Your task to perform on an android device: toggle data saver in the chrome app Image 0: 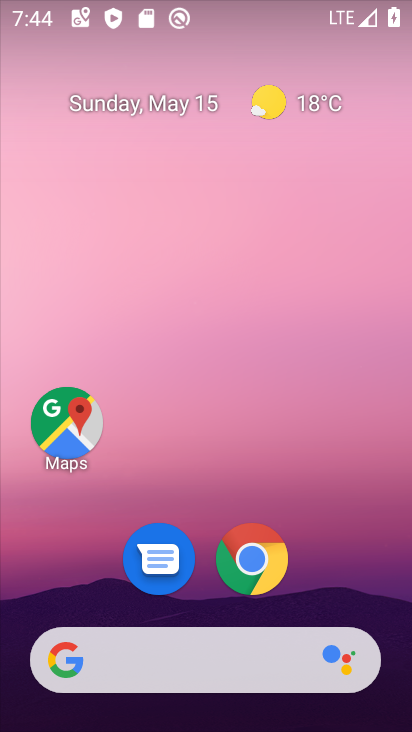
Step 0: click (252, 566)
Your task to perform on an android device: toggle data saver in the chrome app Image 1: 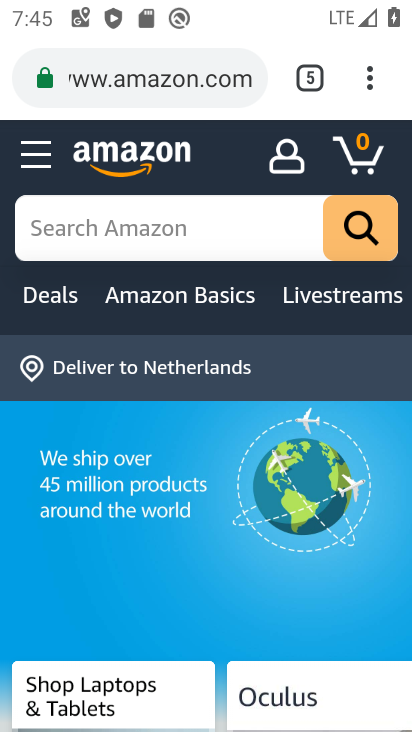
Step 1: click (371, 73)
Your task to perform on an android device: toggle data saver in the chrome app Image 2: 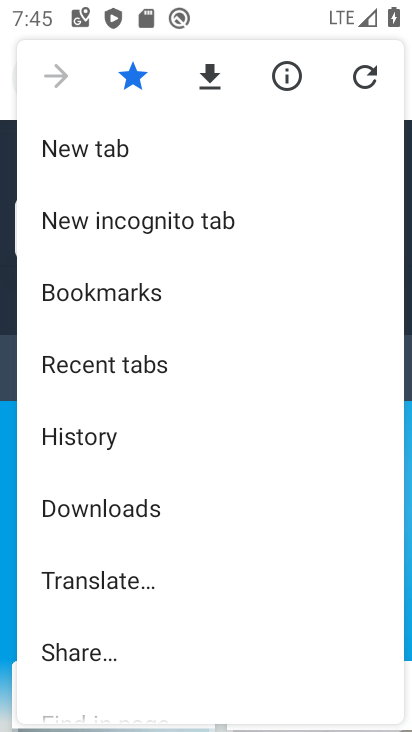
Step 2: drag from (202, 540) to (127, 244)
Your task to perform on an android device: toggle data saver in the chrome app Image 3: 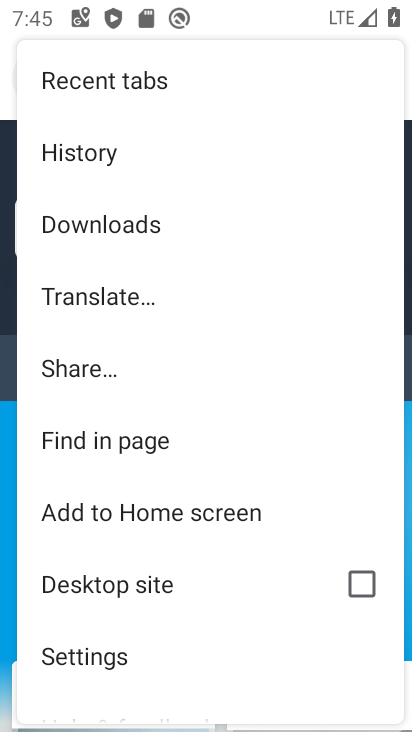
Step 3: click (99, 658)
Your task to perform on an android device: toggle data saver in the chrome app Image 4: 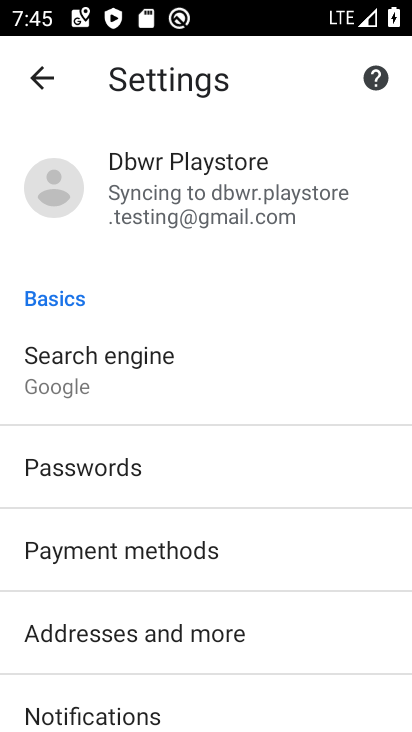
Step 4: drag from (321, 550) to (225, 185)
Your task to perform on an android device: toggle data saver in the chrome app Image 5: 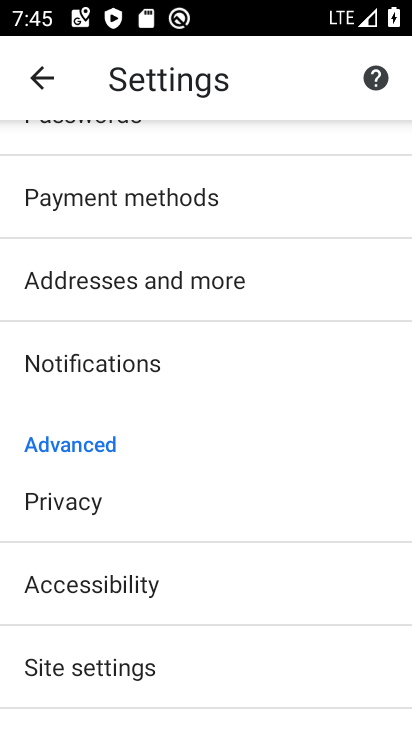
Step 5: drag from (214, 580) to (167, 297)
Your task to perform on an android device: toggle data saver in the chrome app Image 6: 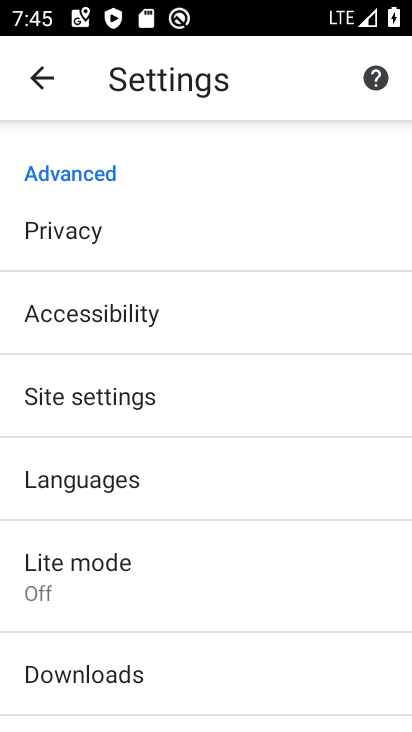
Step 6: click (90, 569)
Your task to perform on an android device: toggle data saver in the chrome app Image 7: 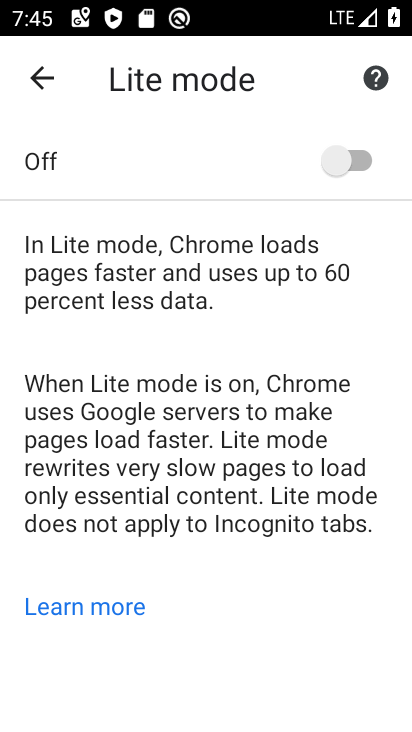
Step 7: click (334, 161)
Your task to perform on an android device: toggle data saver in the chrome app Image 8: 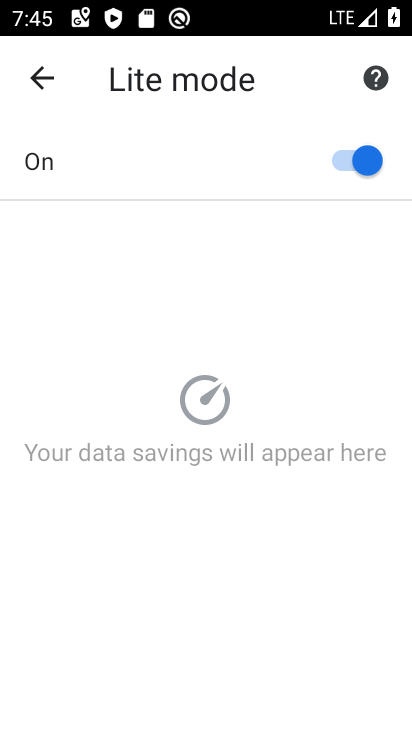
Step 8: task complete